Your task to perform on an android device: see tabs open on other devices in the chrome app Image 0: 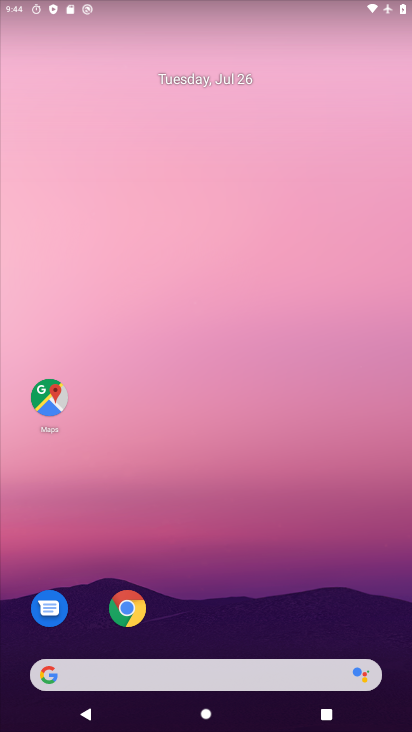
Step 0: click (130, 601)
Your task to perform on an android device: see tabs open on other devices in the chrome app Image 1: 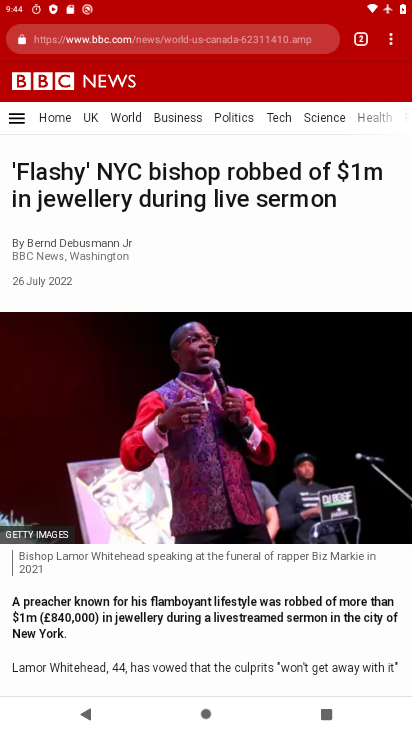
Step 1: click (388, 29)
Your task to perform on an android device: see tabs open on other devices in the chrome app Image 2: 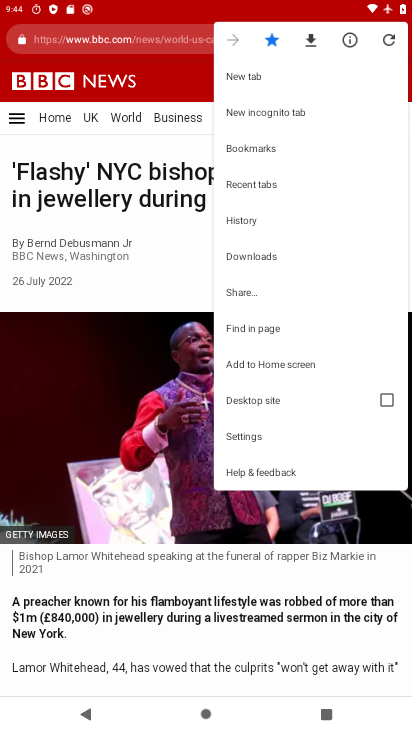
Step 2: click (306, 187)
Your task to perform on an android device: see tabs open on other devices in the chrome app Image 3: 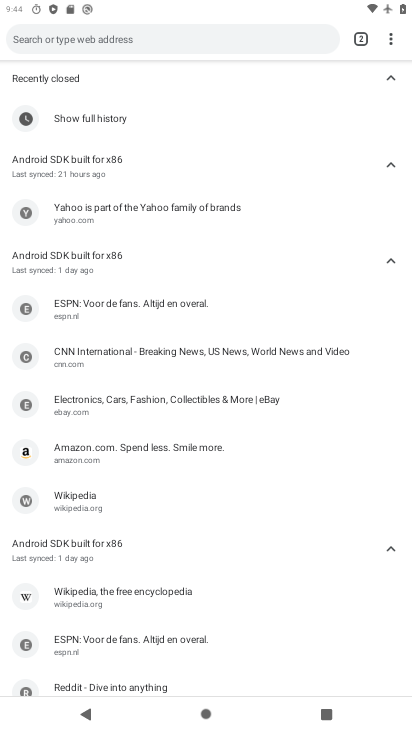
Step 3: task complete